Your task to perform on an android device: Show the shopping cart on walmart. Search for "energizer triple a" on walmart, select the first entry, add it to the cart, then select checkout. Image 0: 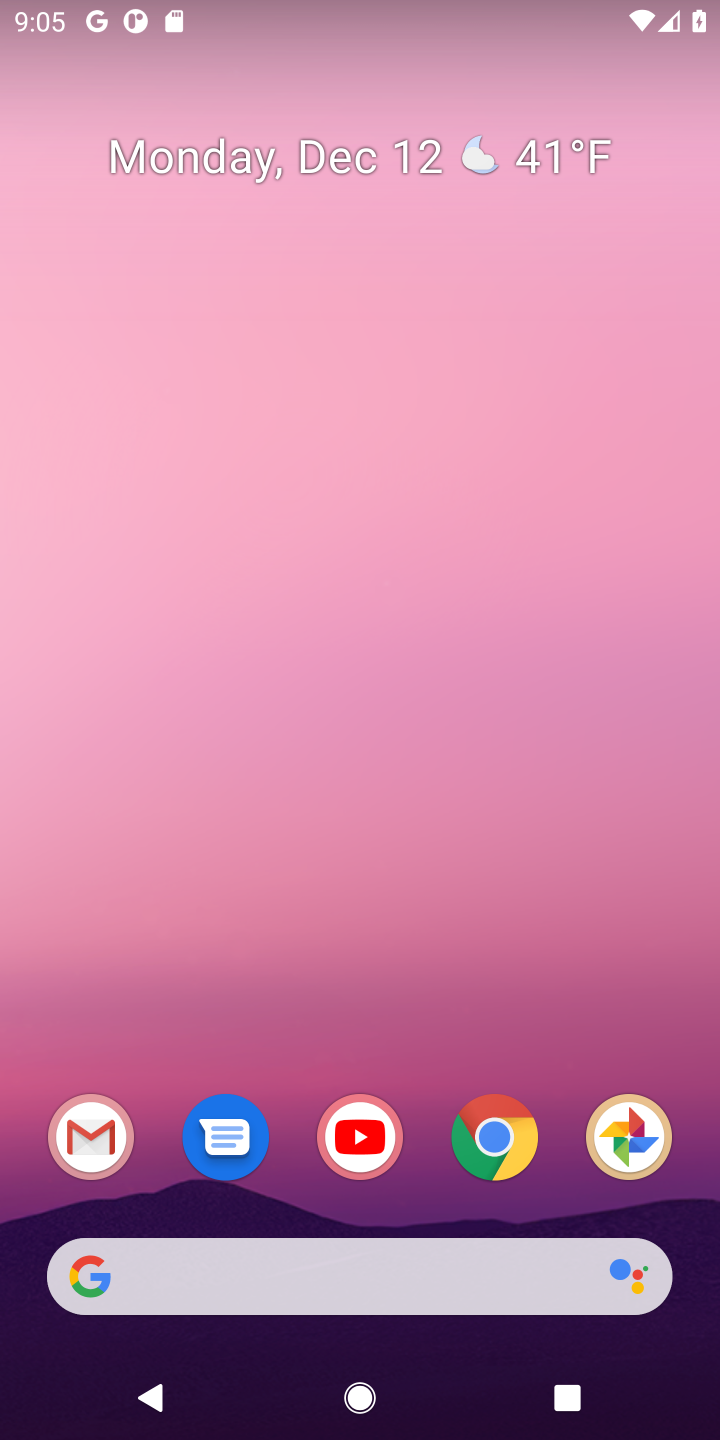
Step 0: click (495, 1138)
Your task to perform on an android device: Show the shopping cart on walmart. Search for "energizer triple a" on walmart, select the first entry, add it to the cart, then select checkout. Image 1: 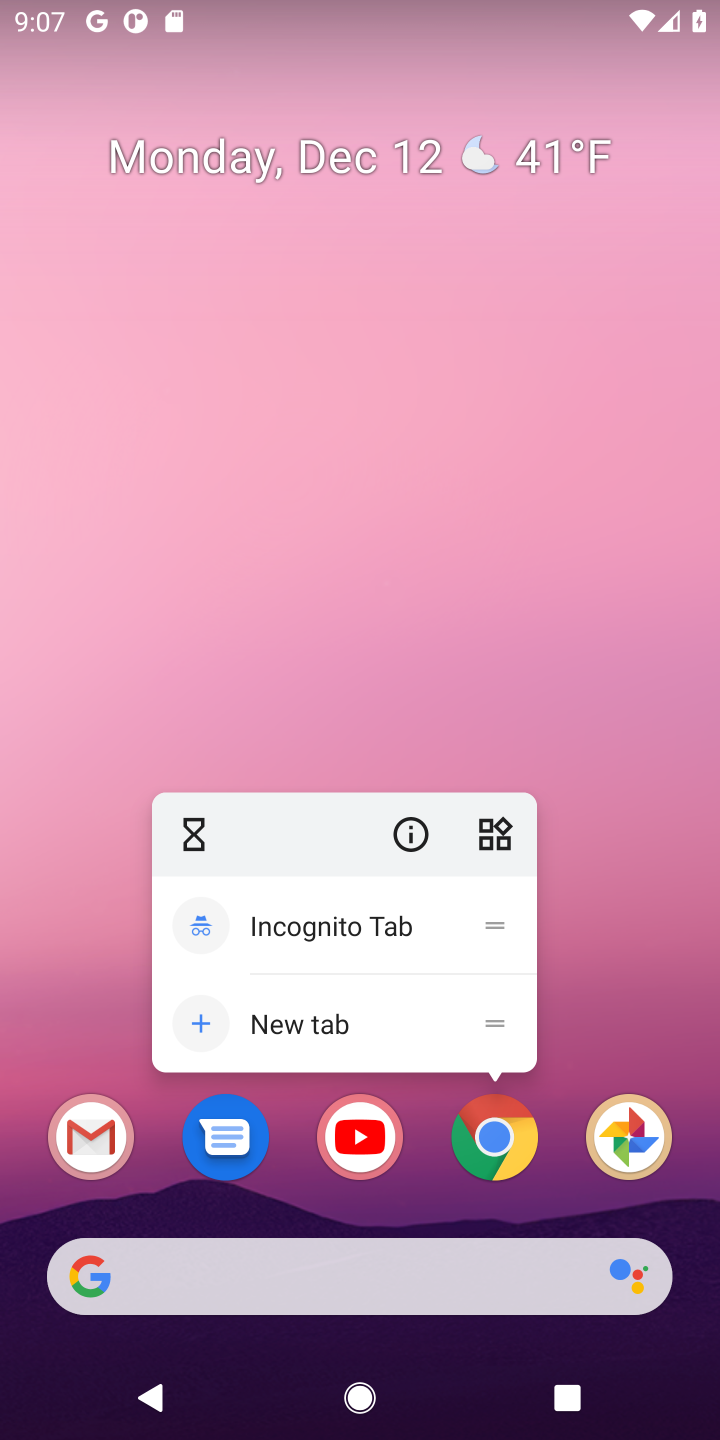
Step 1: click (496, 1134)
Your task to perform on an android device: Show the shopping cart on walmart. Search for "energizer triple a" on walmart, select the first entry, add it to the cart, then select checkout. Image 2: 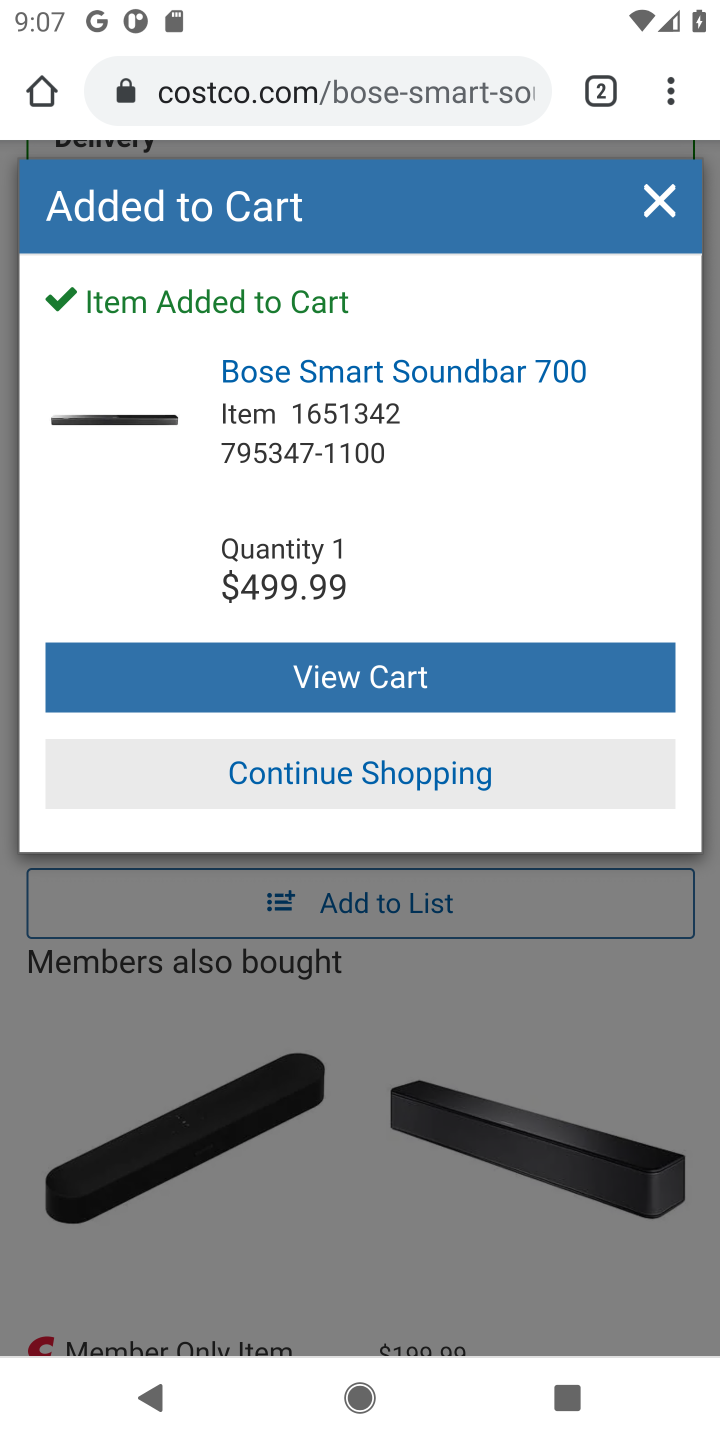
Step 2: click (326, 94)
Your task to perform on an android device: Show the shopping cart on walmart. Search for "energizer triple a" on walmart, select the first entry, add it to the cart, then select checkout. Image 3: 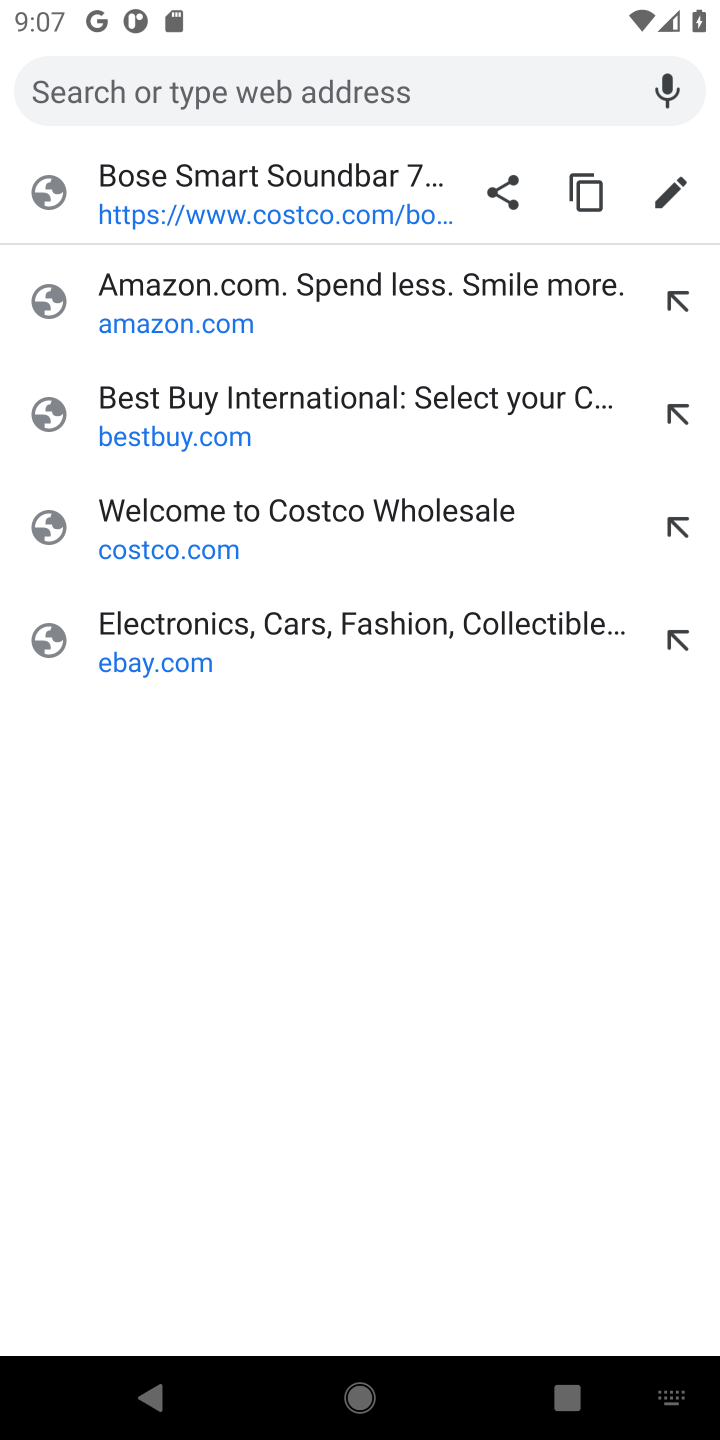
Step 3: type "WALMART"
Your task to perform on an android device: Show the shopping cart on walmart. Search for "energizer triple a" on walmart, select the first entry, add it to the cart, then select checkout. Image 4: 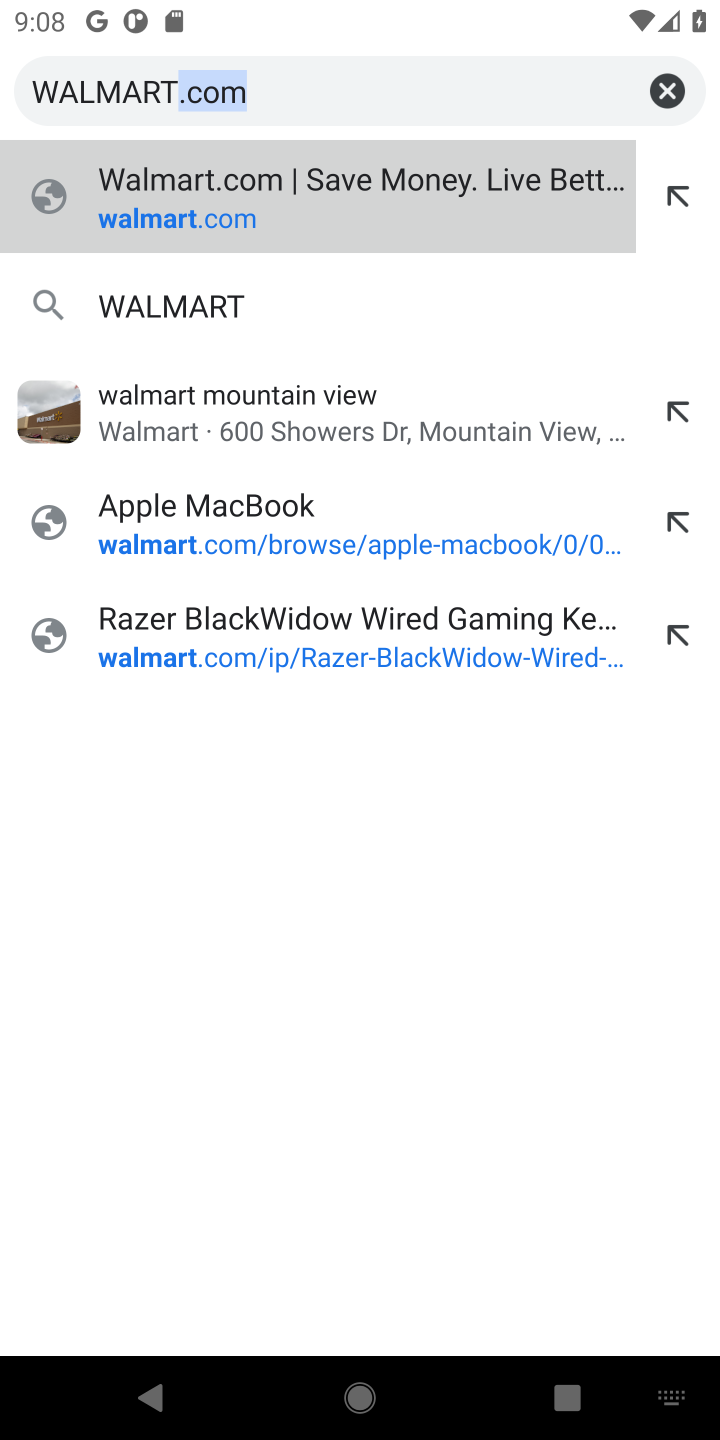
Step 4: click (381, 191)
Your task to perform on an android device: Show the shopping cart on walmart. Search for "energizer triple a" on walmart, select the first entry, add it to the cart, then select checkout. Image 5: 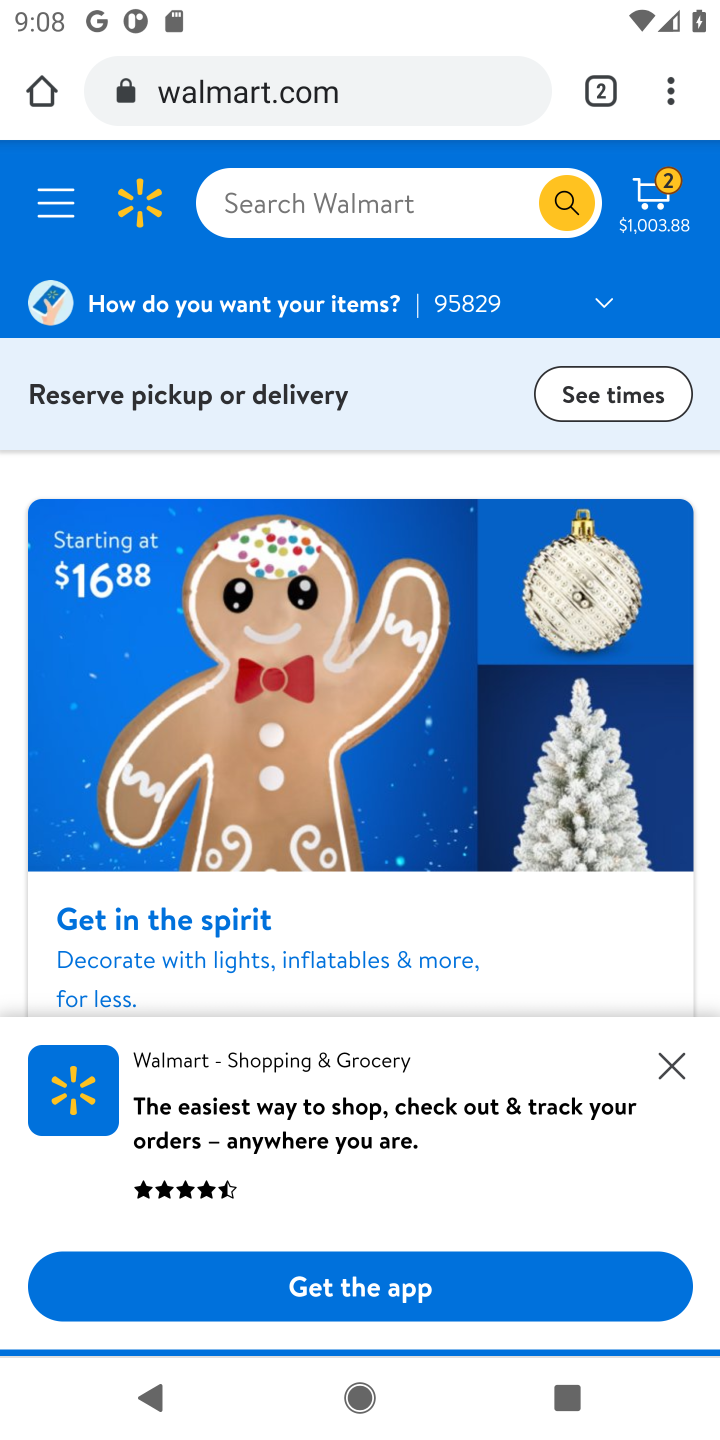
Step 5: click (664, 1067)
Your task to perform on an android device: Show the shopping cart on walmart. Search for "energizer triple a" on walmart, select the first entry, add it to the cart, then select checkout. Image 6: 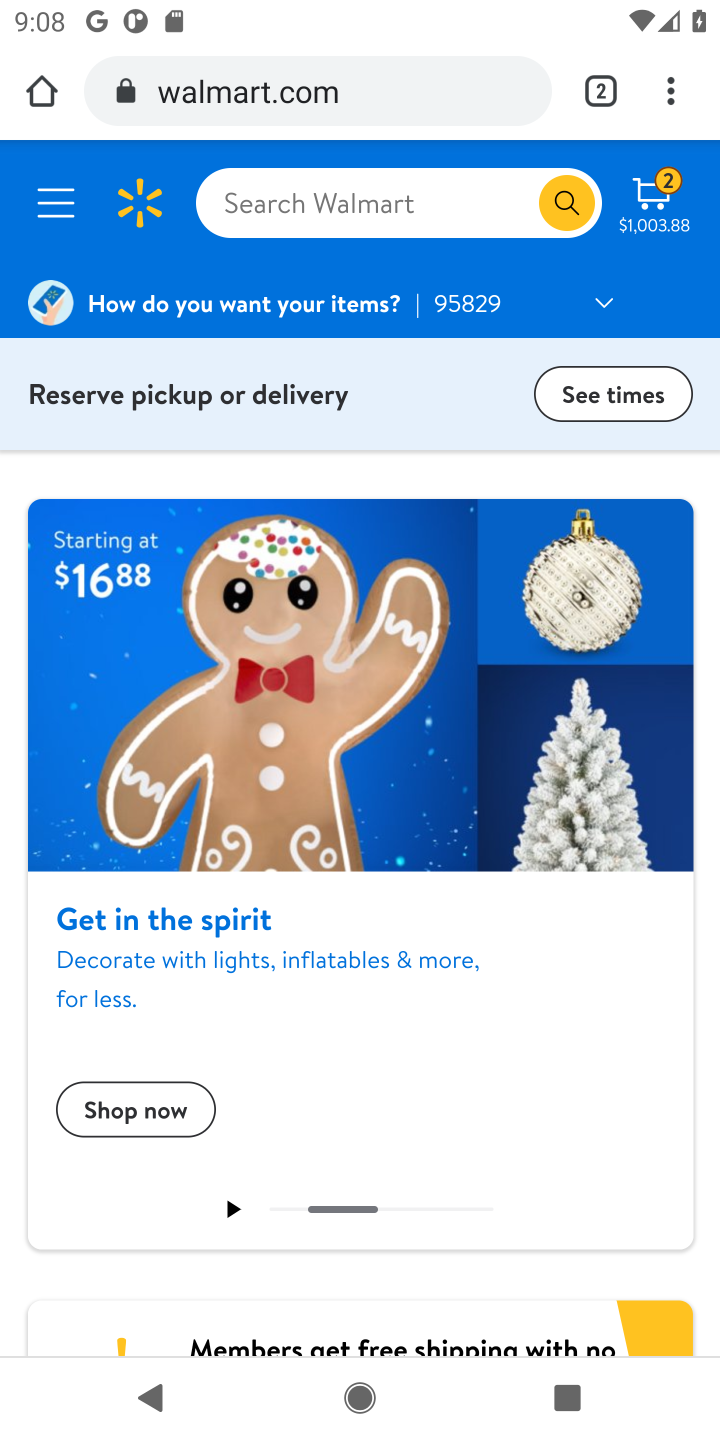
Step 6: click (462, 188)
Your task to perform on an android device: Show the shopping cart on walmart. Search for "energizer triple a" on walmart, select the first entry, add it to the cart, then select checkout. Image 7: 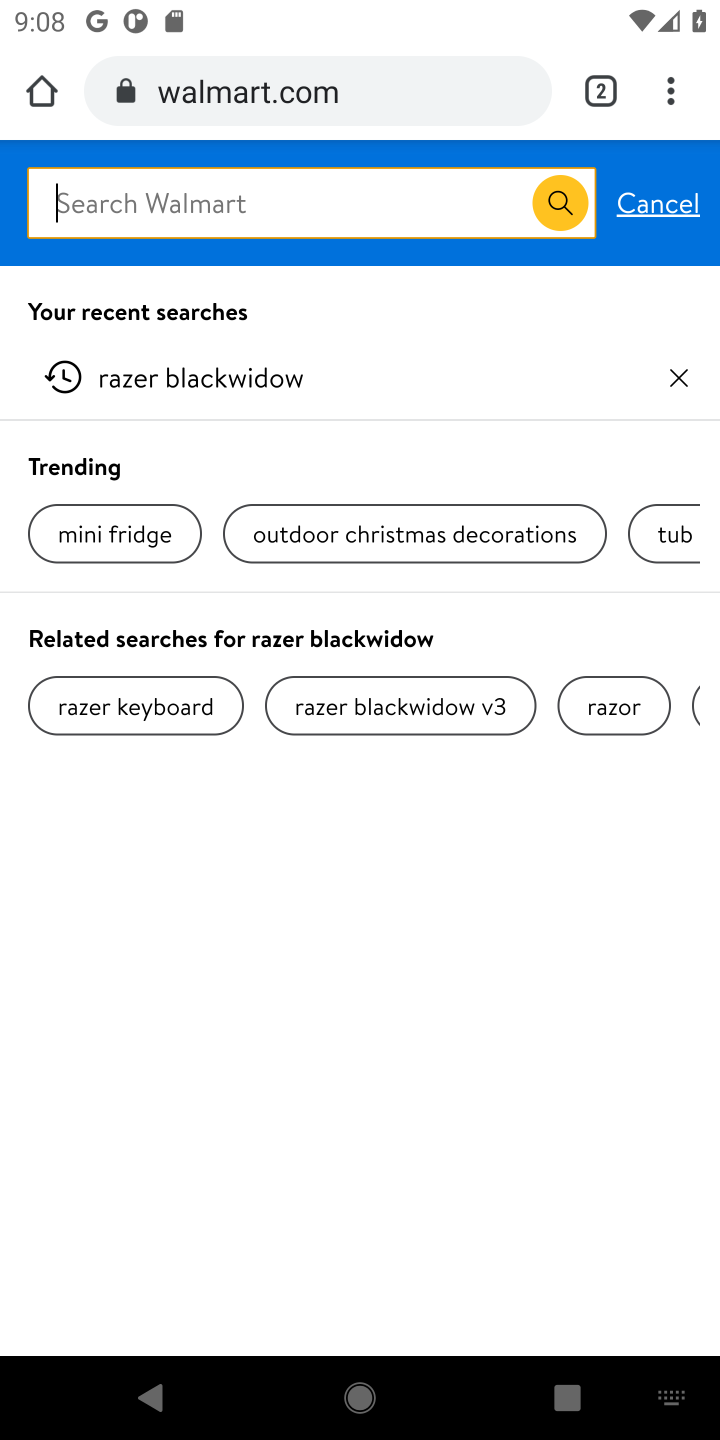
Step 7: type "energizer triple a"
Your task to perform on an android device: Show the shopping cart on walmart. Search for "energizer triple a" on walmart, select the first entry, add it to the cart, then select checkout. Image 8: 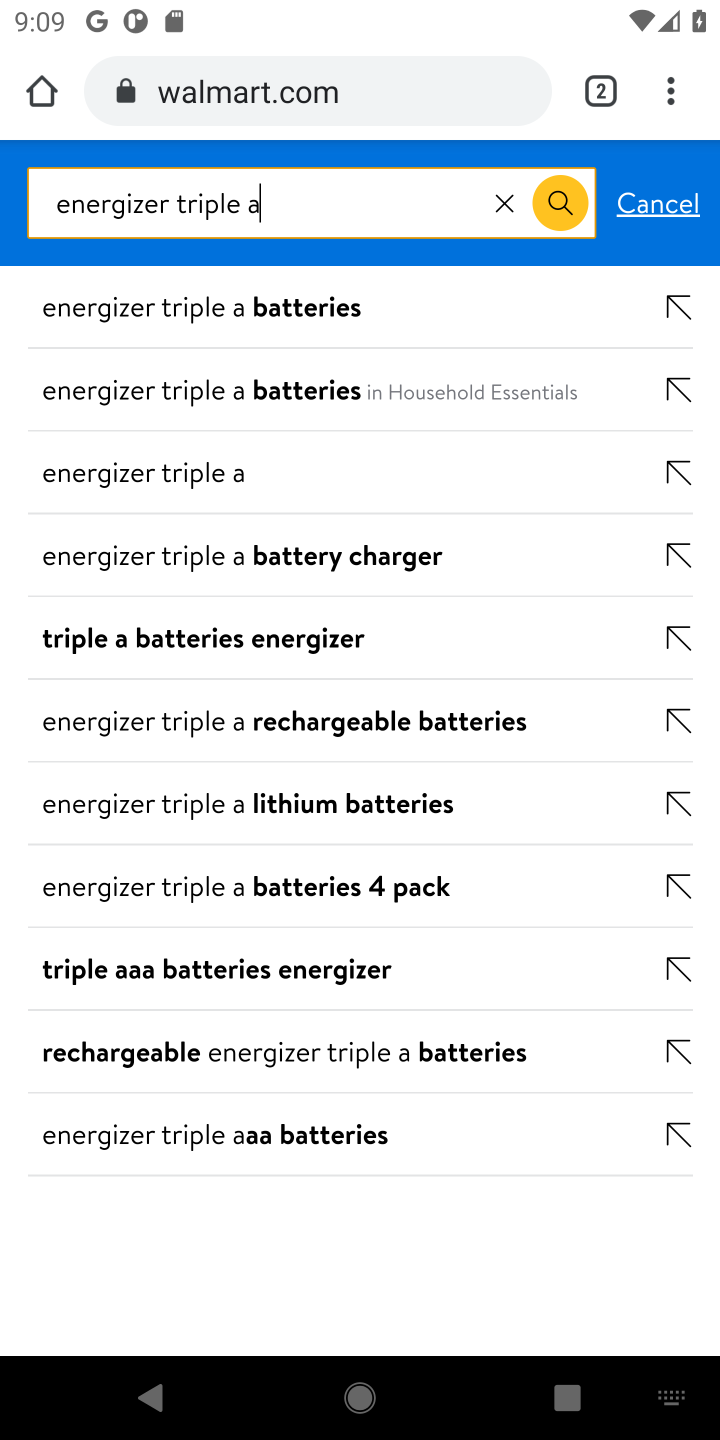
Step 8: click (287, 305)
Your task to perform on an android device: Show the shopping cart on walmart. Search for "energizer triple a" on walmart, select the first entry, add it to the cart, then select checkout. Image 9: 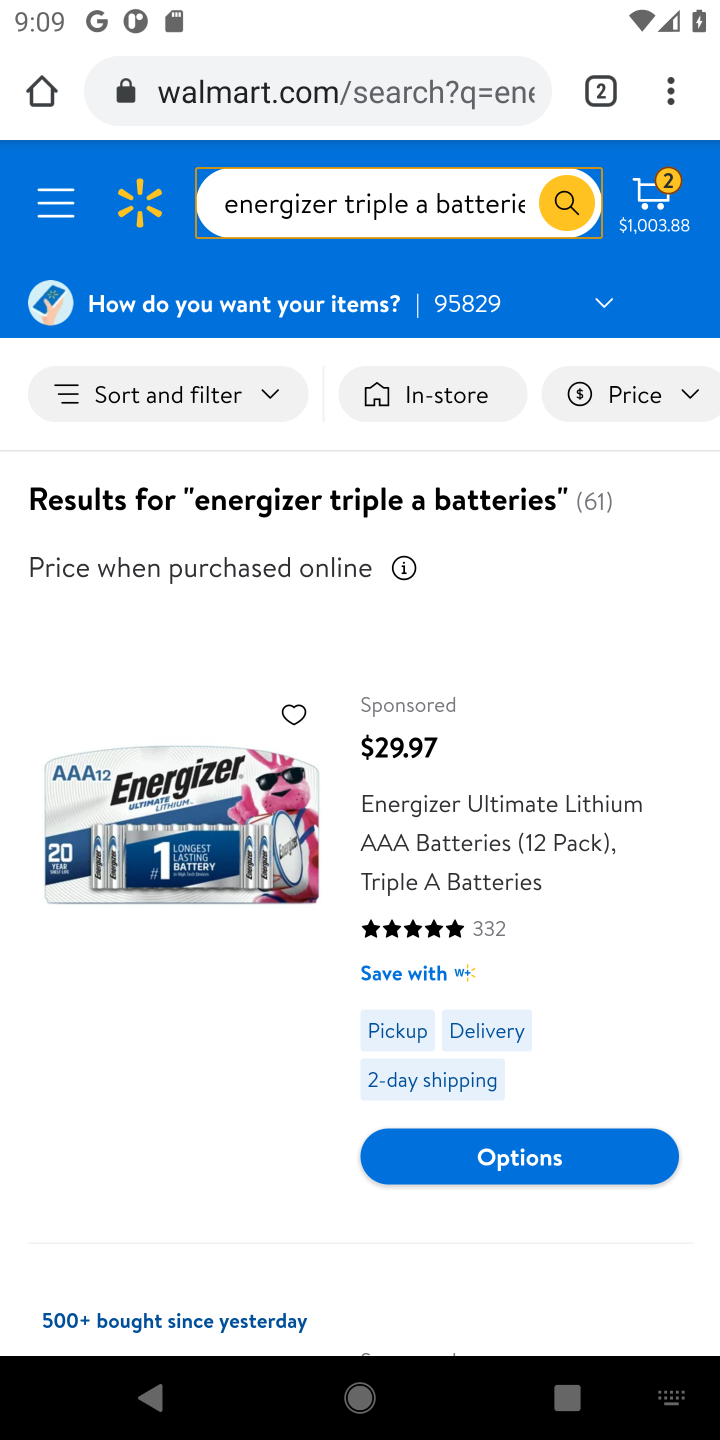
Step 9: click (580, 858)
Your task to perform on an android device: Show the shopping cart on walmart. Search for "energizer triple a" on walmart, select the first entry, add it to the cart, then select checkout. Image 10: 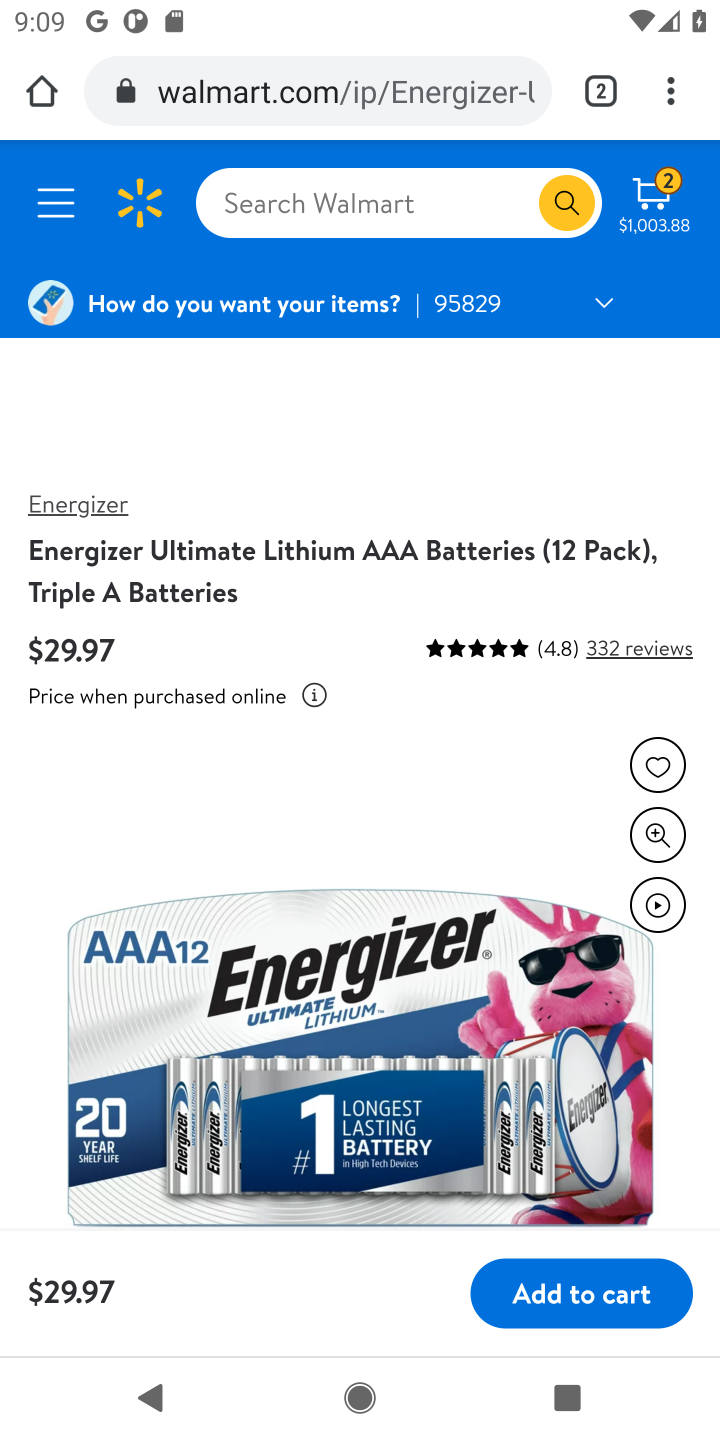
Step 10: click (583, 1308)
Your task to perform on an android device: Show the shopping cart on walmart. Search for "energizer triple a" on walmart, select the first entry, add it to the cart, then select checkout. Image 11: 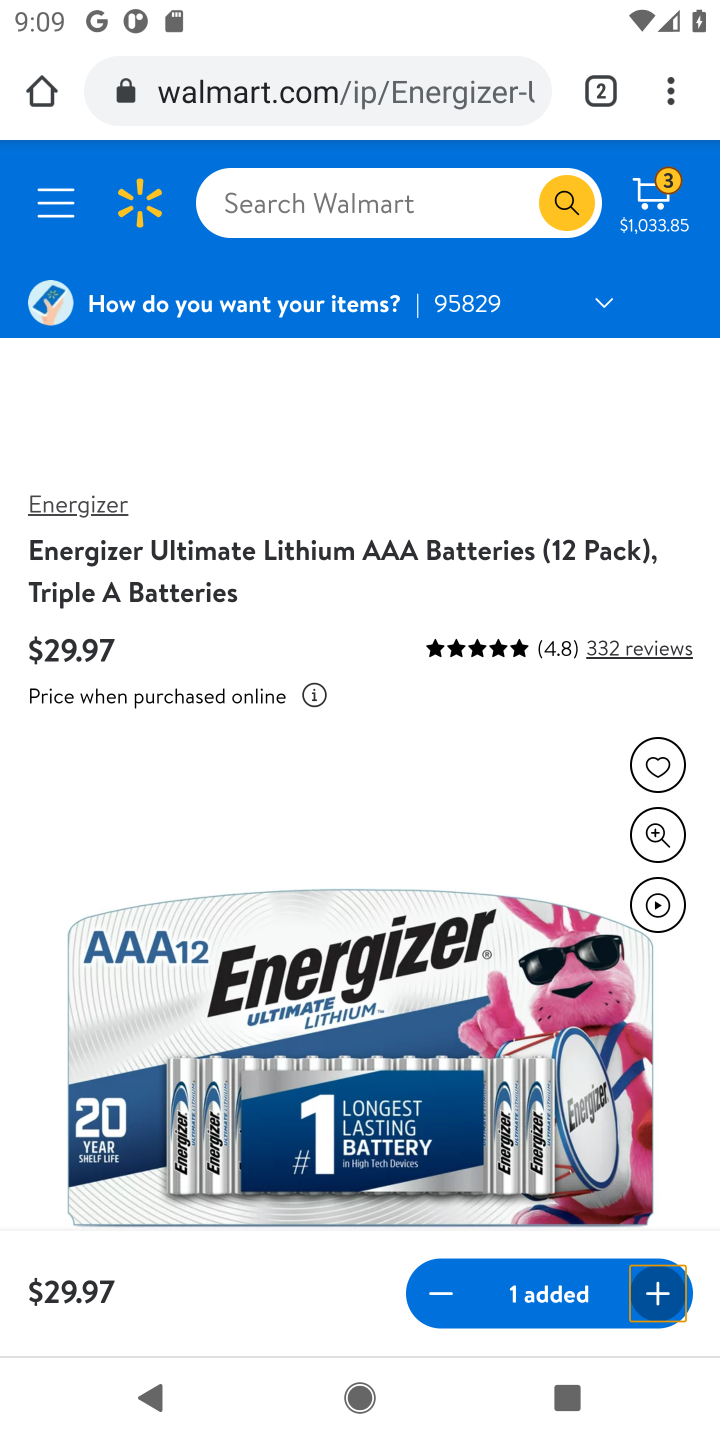
Step 11: click (655, 221)
Your task to perform on an android device: Show the shopping cart on walmart. Search for "energizer triple a" on walmart, select the first entry, add it to the cart, then select checkout. Image 12: 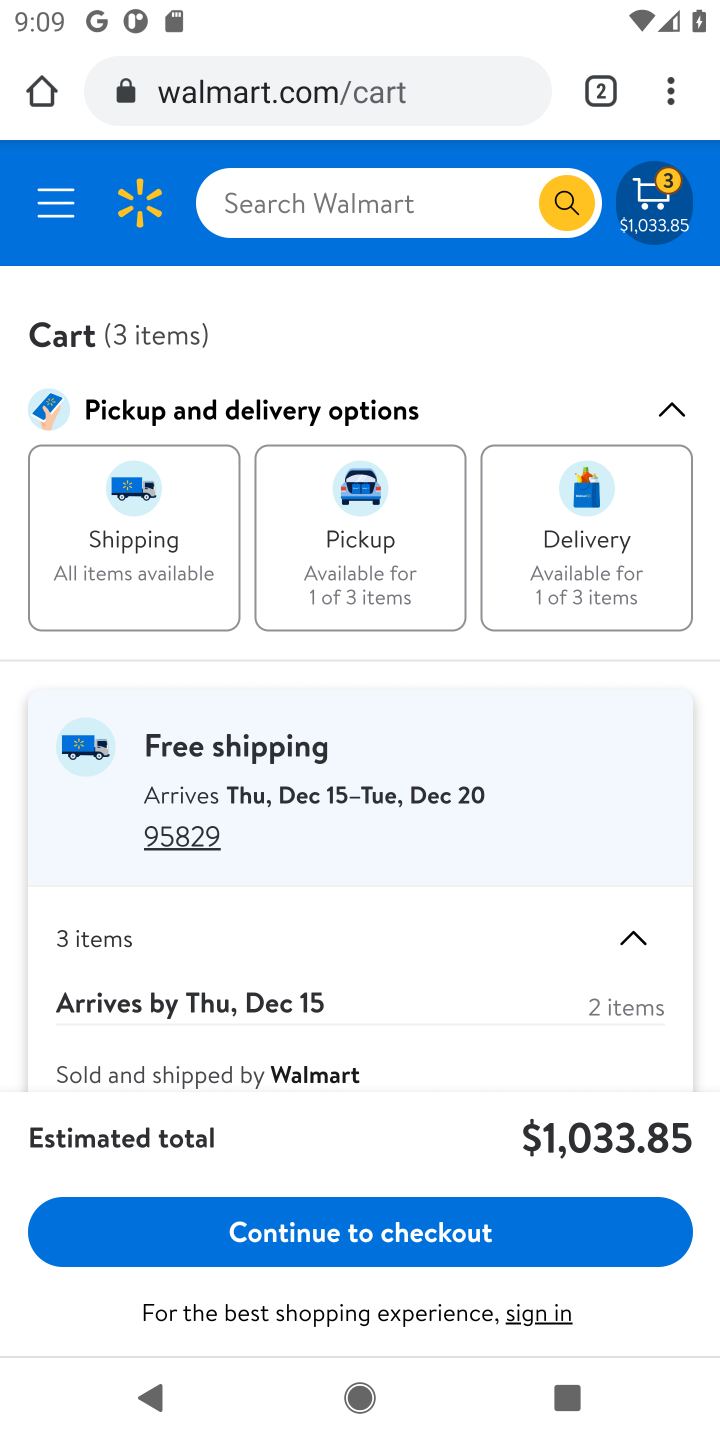
Step 12: click (436, 1252)
Your task to perform on an android device: Show the shopping cart on walmart. Search for "energizer triple a" on walmart, select the first entry, add it to the cart, then select checkout. Image 13: 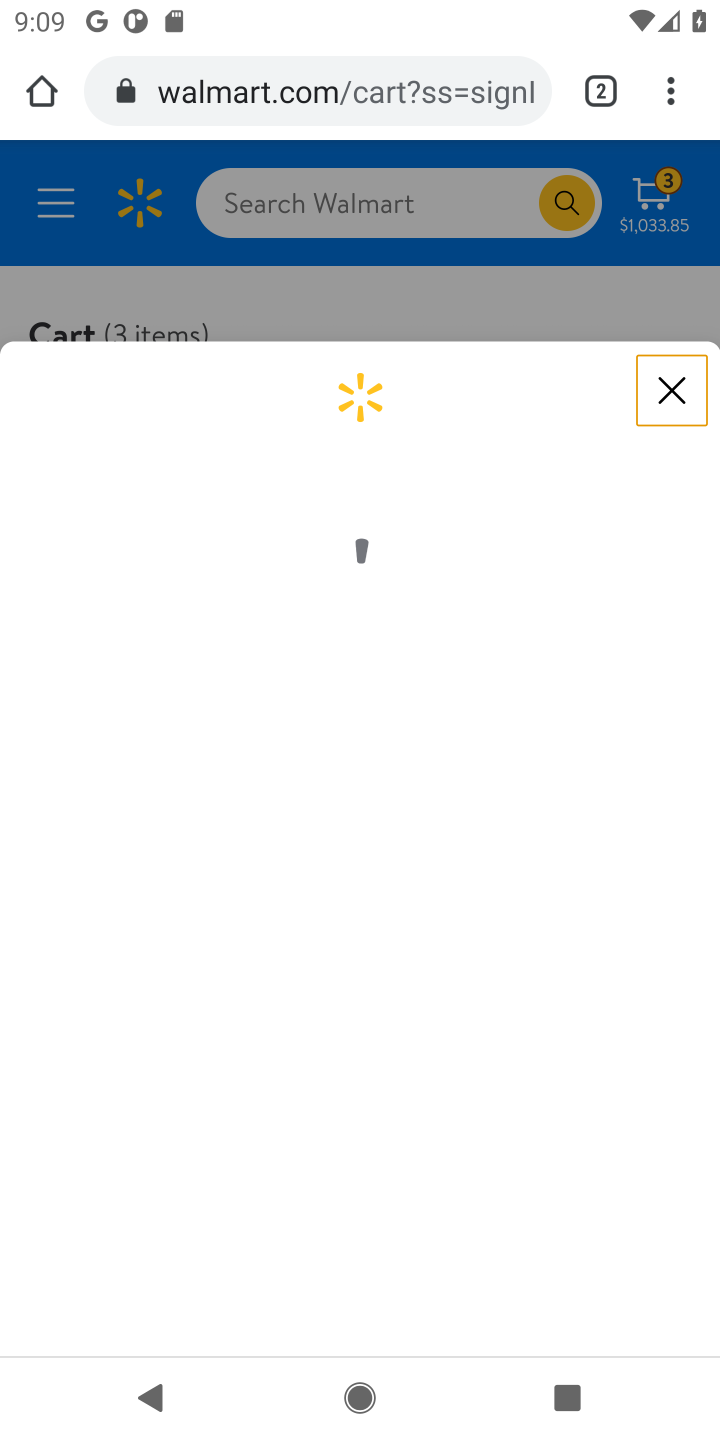
Step 13: task complete